Your task to perform on an android device: Open battery settings Image 0: 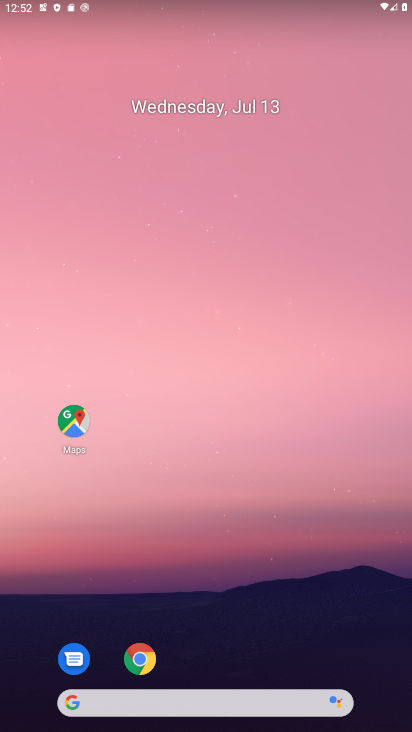
Step 0: drag from (183, 654) to (258, 21)
Your task to perform on an android device: Open battery settings Image 1: 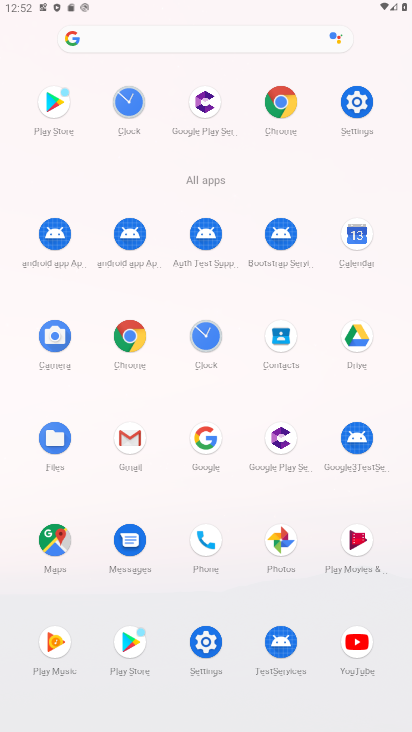
Step 1: click (196, 638)
Your task to perform on an android device: Open battery settings Image 2: 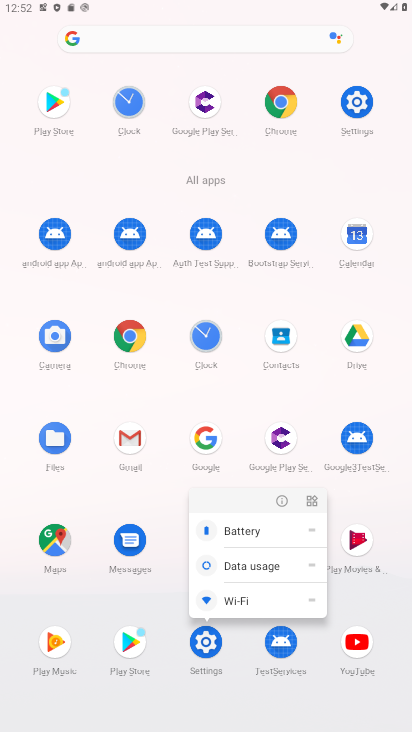
Step 2: click (244, 533)
Your task to perform on an android device: Open battery settings Image 3: 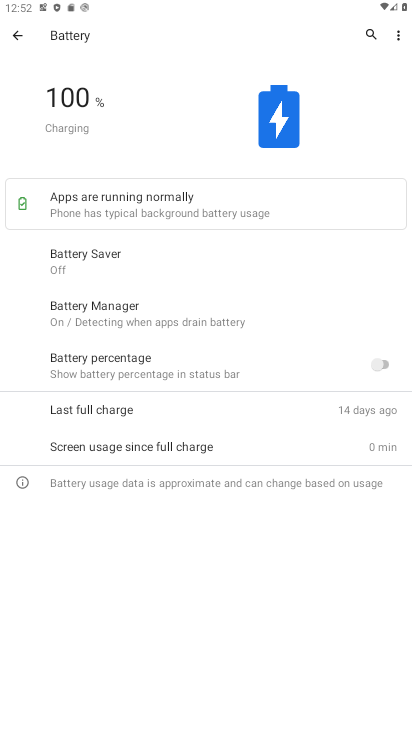
Step 3: click (119, 256)
Your task to perform on an android device: Open battery settings Image 4: 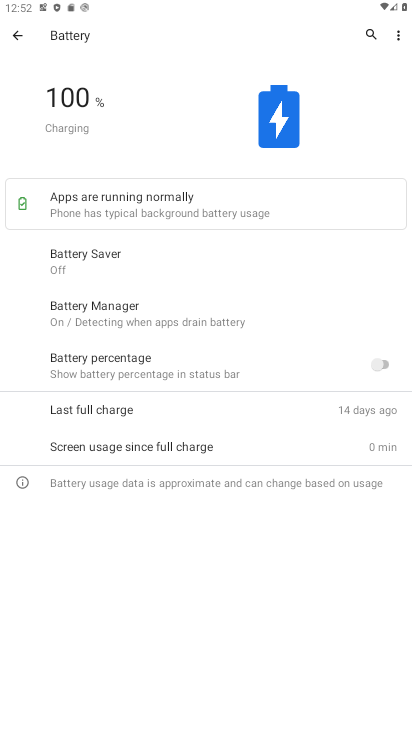
Step 4: click (119, 256)
Your task to perform on an android device: Open battery settings Image 5: 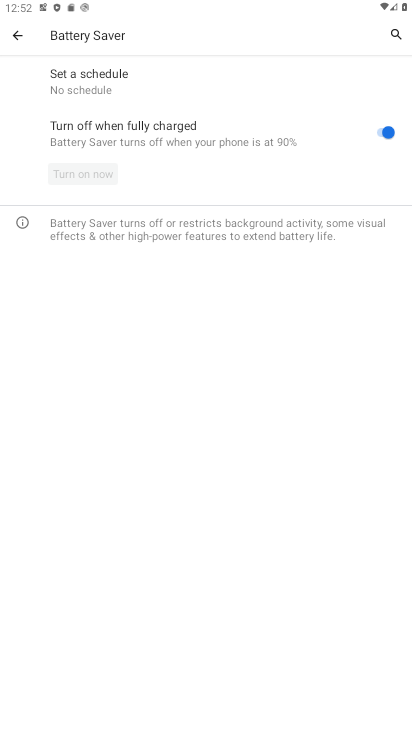
Step 5: drag from (227, 361) to (227, 192)
Your task to perform on an android device: Open battery settings Image 6: 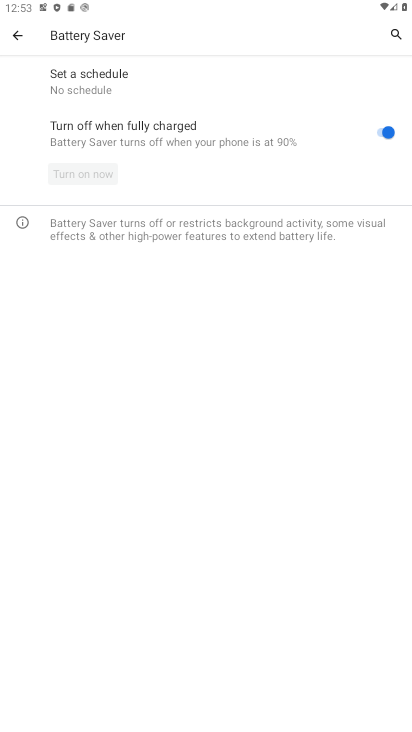
Step 6: drag from (197, 524) to (249, 128)
Your task to perform on an android device: Open battery settings Image 7: 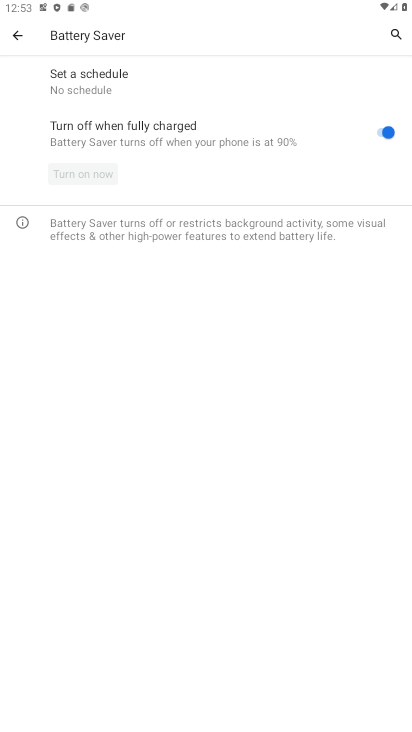
Step 7: drag from (188, 465) to (219, 190)
Your task to perform on an android device: Open battery settings Image 8: 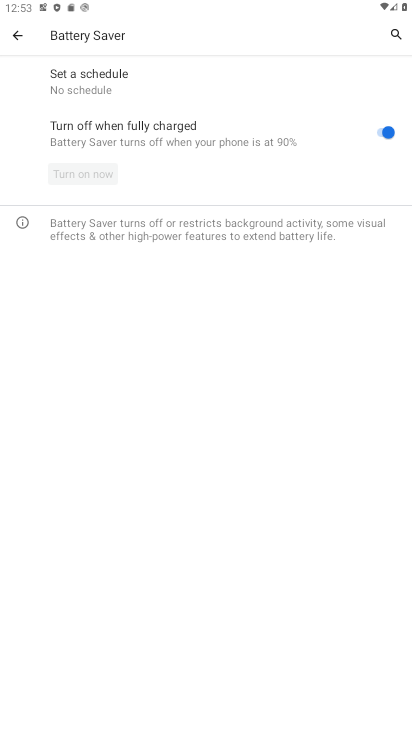
Step 8: drag from (203, 453) to (251, 238)
Your task to perform on an android device: Open battery settings Image 9: 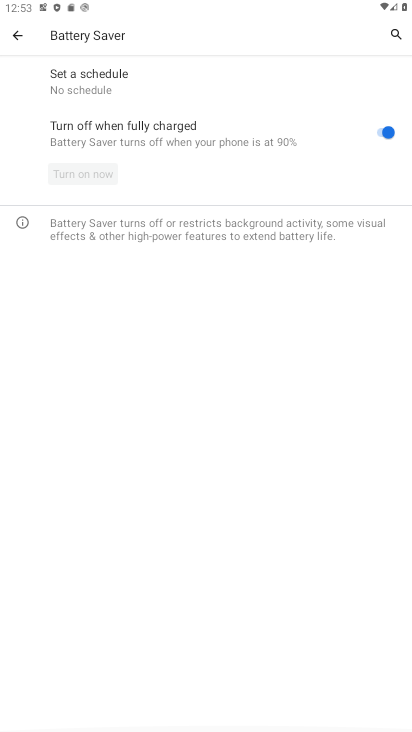
Step 9: drag from (221, 213) to (275, 511)
Your task to perform on an android device: Open battery settings Image 10: 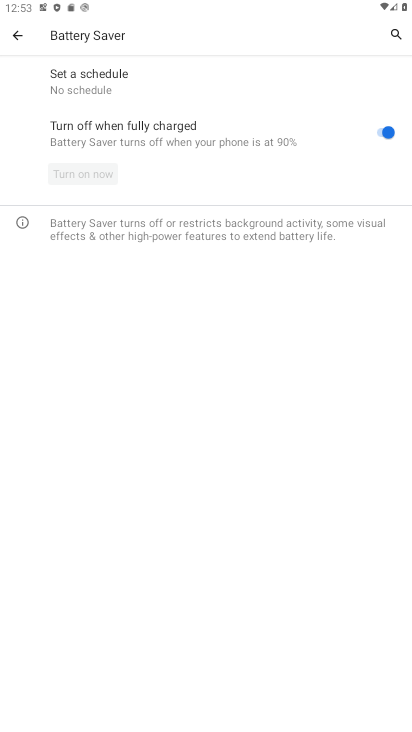
Step 10: drag from (293, 563) to (277, 200)
Your task to perform on an android device: Open battery settings Image 11: 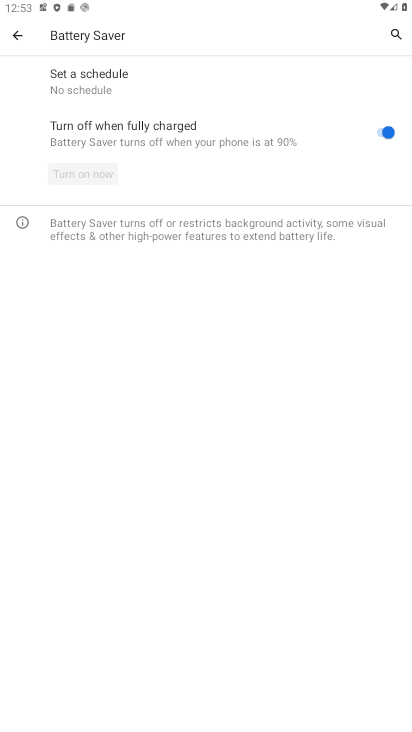
Step 11: drag from (229, 459) to (258, 153)
Your task to perform on an android device: Open battery settings Image 12: 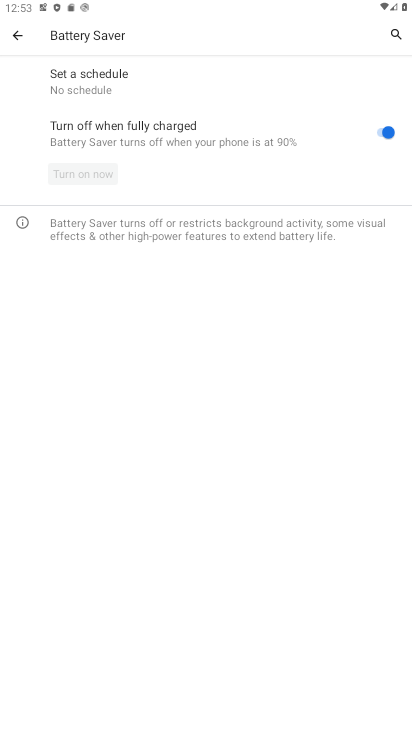
Step 12: drag from (252, 555) to (293, 228)
Your task to perform on an android device: Open battery settings Image 13: 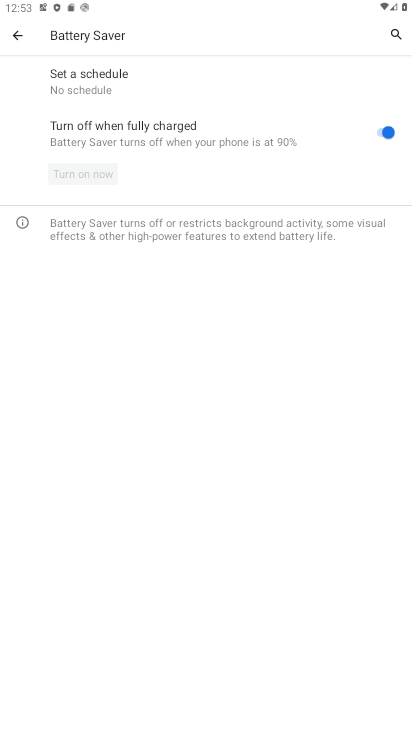
Step 13: drag from (209, 472) to (210, 292)
Your task to perform on an android device: Open battery settings Image 14: 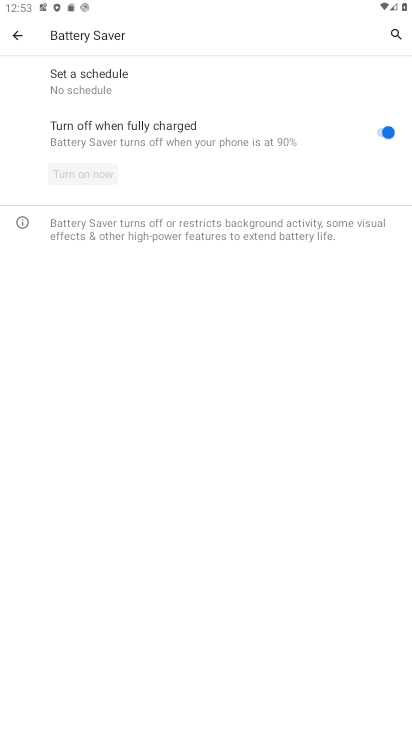
Step 14: drag from (211, 416) to (204, 210)
Your task to perform on an android device: Open battery settings Image 15: 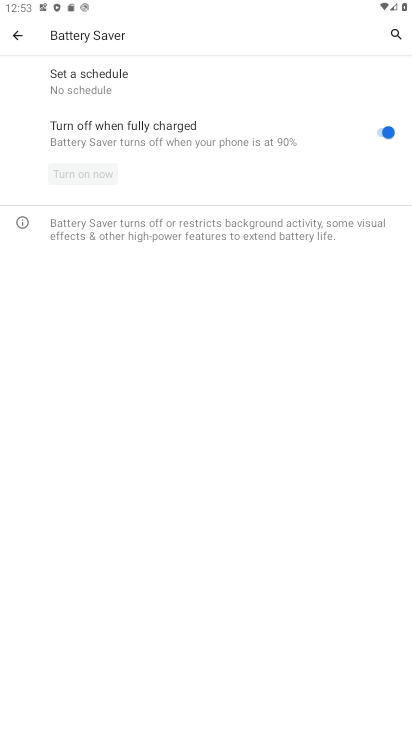
Step 15: drag from (169, 488) to (191, 214)
Your task to perform on an android device: Open battery settings Image 16: 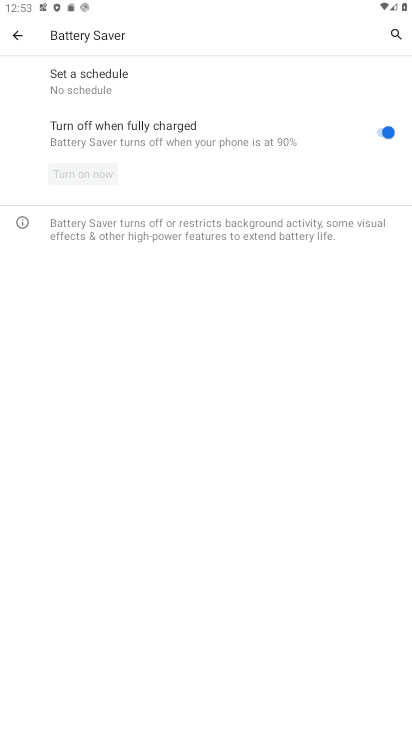
Step 16: click (177, 45)
Your task to perform on an android device: Open battery settings Image 17: 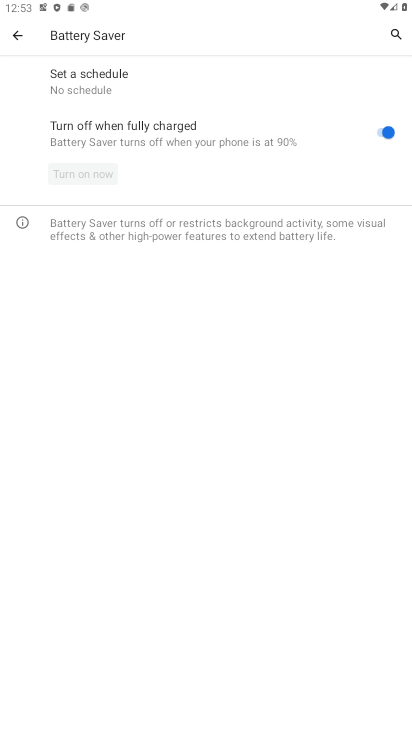
Step 17: task complete